Your task to perform on an android device: turn off data saver in the chrome app Image 0: 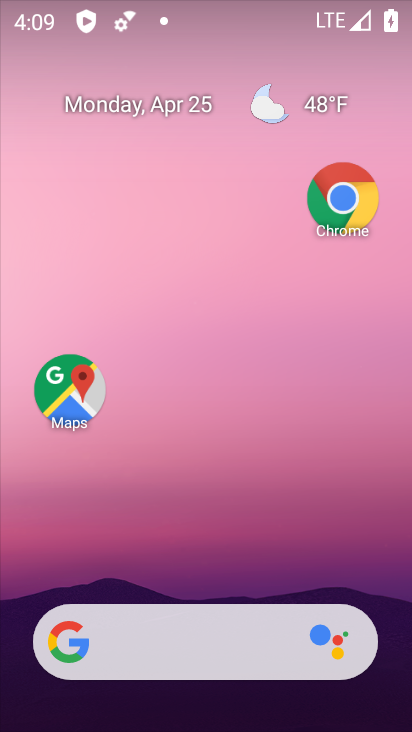
Step 0: drag from (149, 573) to (212, 342)
Your task to perform on an android device: turn off data saver in the chrome app Image 1: 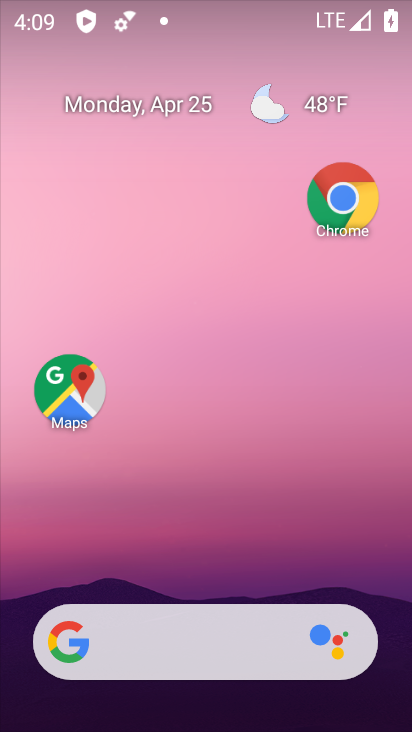
Step 1: drag from (209, 596) to (334, 69)
Your task to perform on an android device: turn off data saver in the chrome app Image 2: 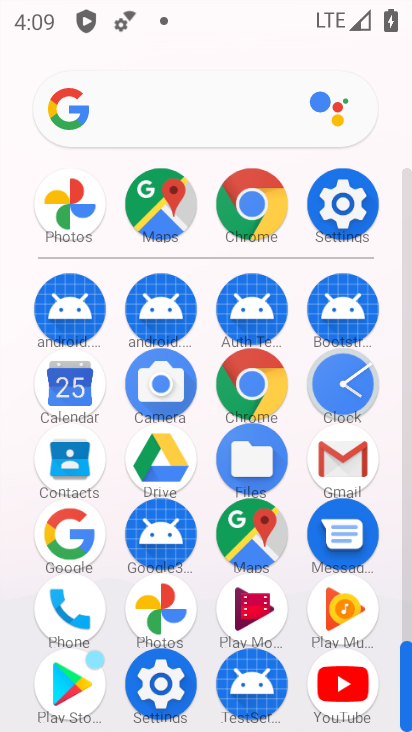
Step 2: click (246, 214)
Your task to perform on an android device: turn off data saver in the chrome app Image 3: 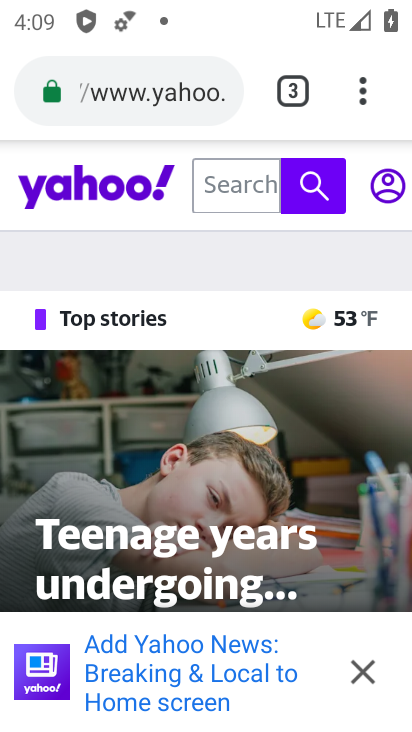
Step 3: drag from (359, 98) to (198, 554)
Your task to perform on an android device: turn off data saver in the chrome app Image 4: 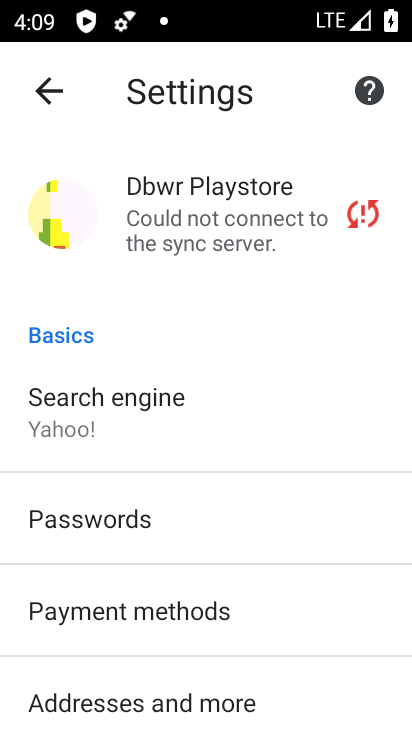
Step 4: drag from (140, 656) to (380, 201)
Your task to perform on an android device: turn off data saver in the chrome app Image 5: 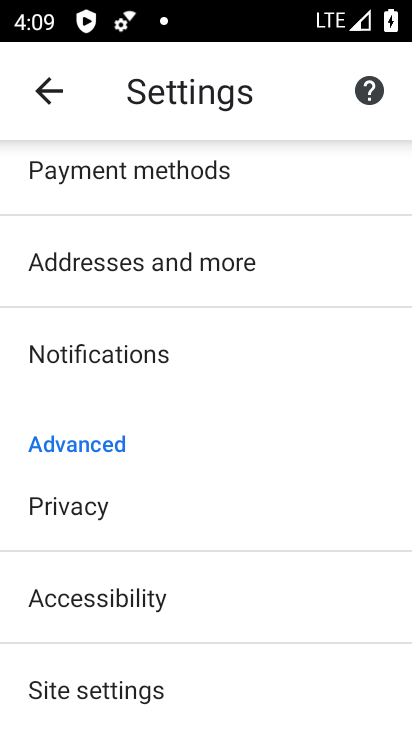
Step 5: drag from (187, 630) to (328, 298)
Your task to perform on an android device: turn off data saver in the chrome app Image 6: 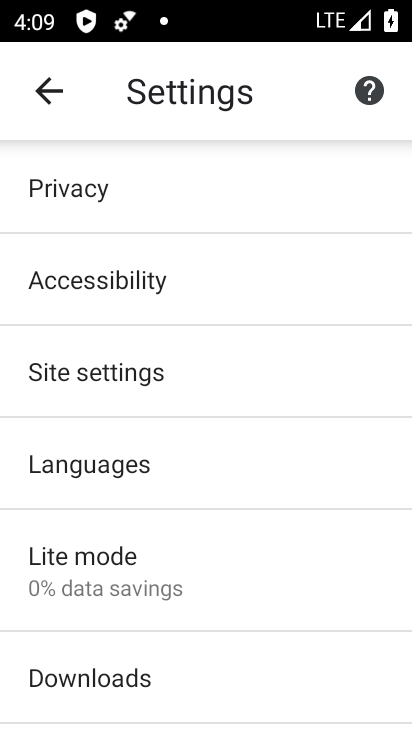
Step 6: click (156, 559)
Your task to perform on an android device: turn off data saver in the chrome app Image 7: 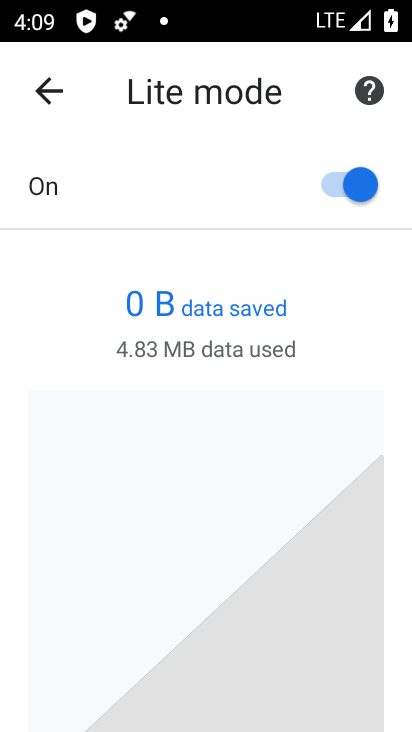
Step 7: click (336, 182)
Your task to perform on an android device: turn off data saver in the chrome app Image 8: 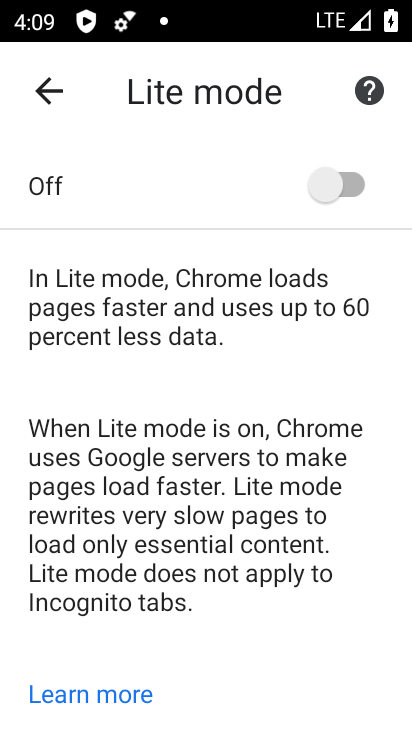
Step 8: task complete